Your task to perform on an android device: Go to Wikipedia Image 0: 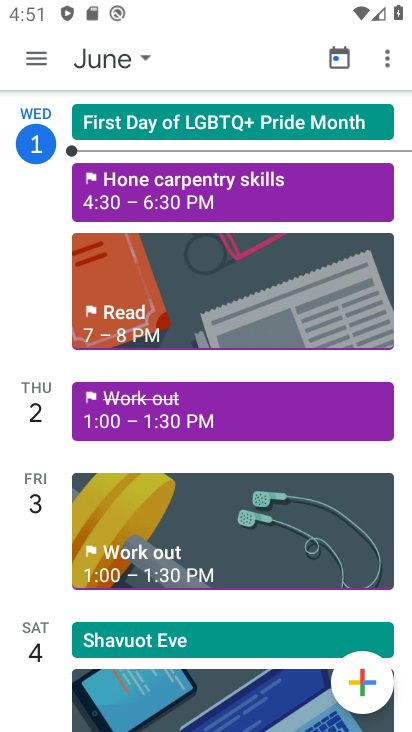
Step 0: press back button
Your task to perform on an android device: Go to Wikipedia Image 1: 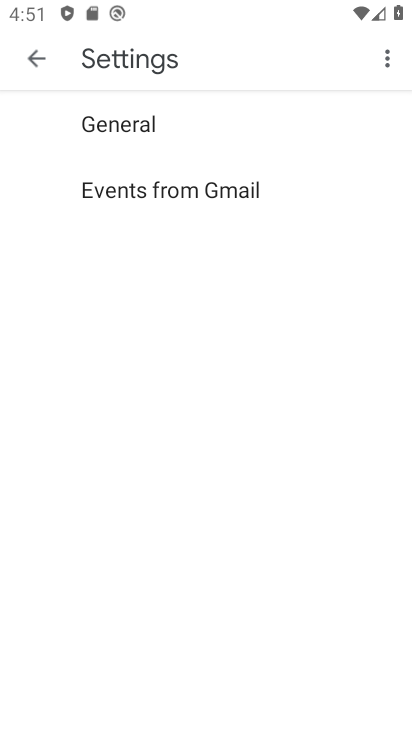
Step 1: press back button
Your task to perform on an android device: Go to Wikipedia Image 2: 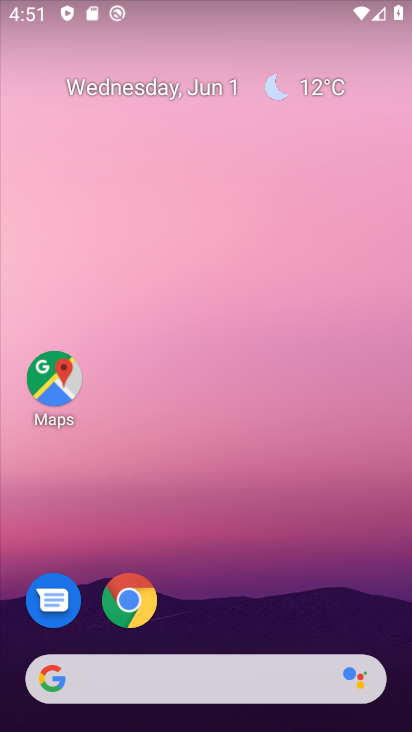
Step 2: click (130, 600)
Your task to perform on an android device: Go to Wikipedia Image 3: 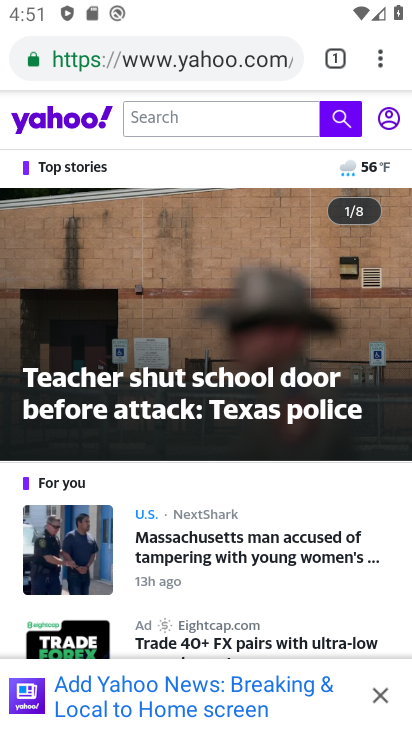
Step 3: click (279, 63)
Your task to perform on an android device: Go to Wikipedia Image 4: 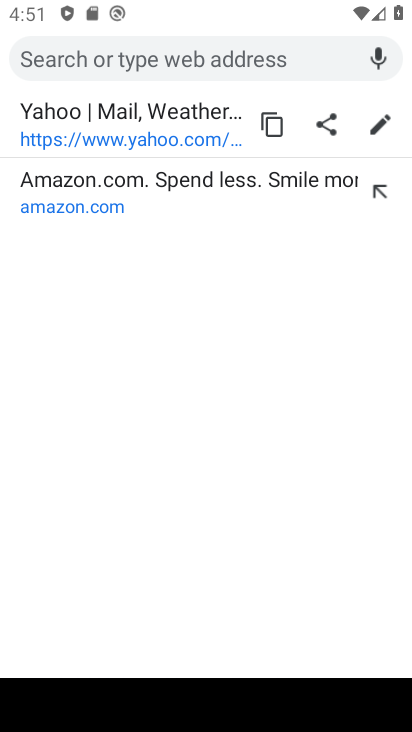
Step 4: type "wikipedia"
Your task to perform on an android device: Go to Wikipedia Image 5: 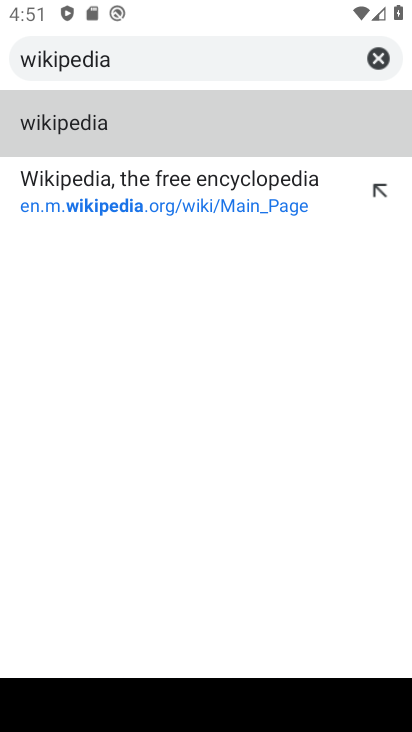
Step 5: click (127, 134)
Your task to perform on an android device: Go to Wikipedia Image 6: 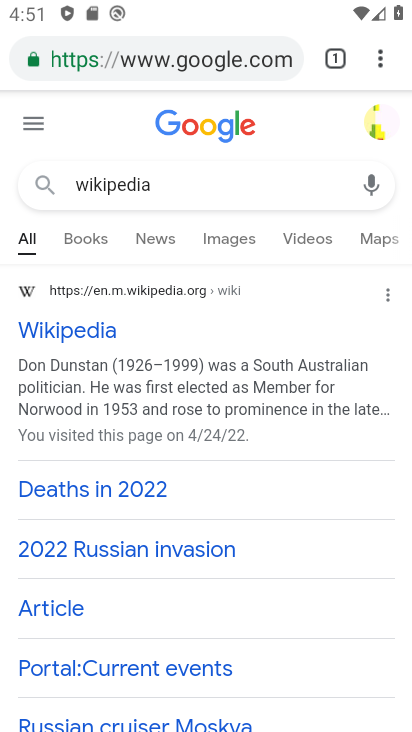
Step 6: click (90, 338)
Your task to perform on an android device: Go to Wikipedia Image 7: 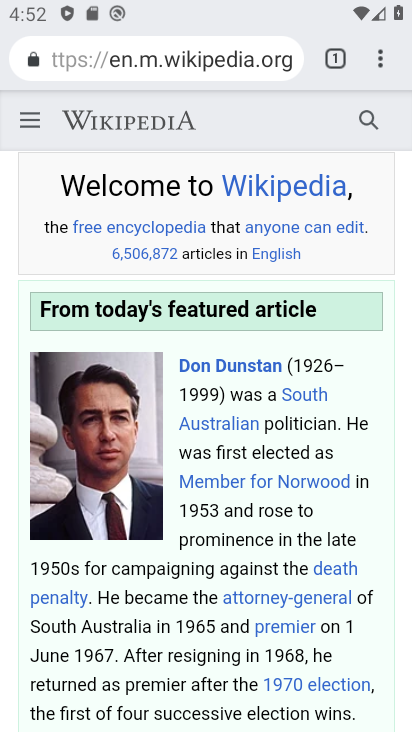
Step 7: task complete